Your task to perform on an android device: turn pop-ups on in chrome Image 0: 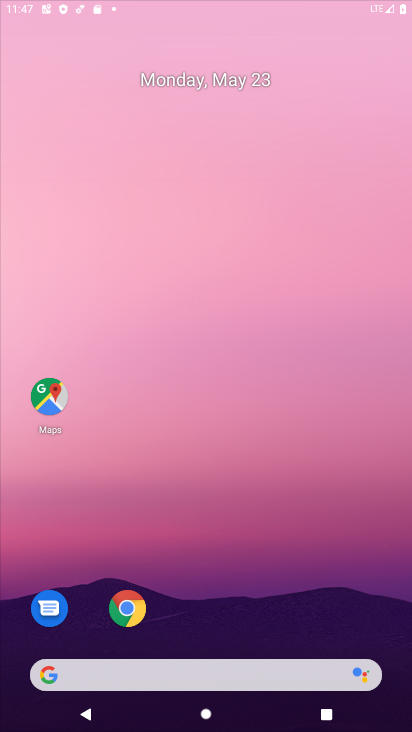
Step 0: press home button
Your task to perform on an android device: turn pop-ups on in chrome Image 1: 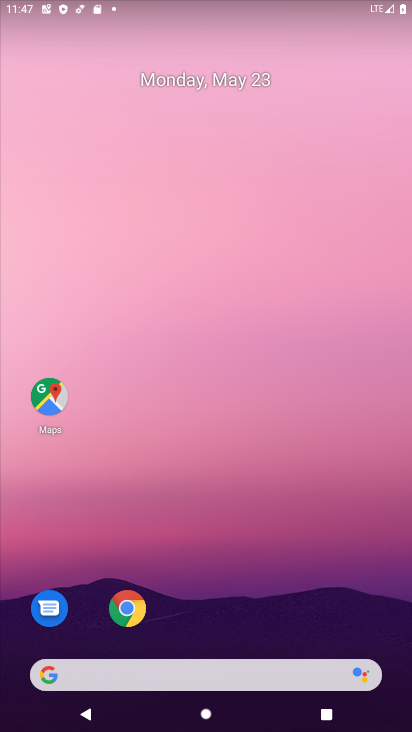
Step 1: click (122, 600)
Your task to perform on an android device: turn pop-ups on in chrome Image 2: 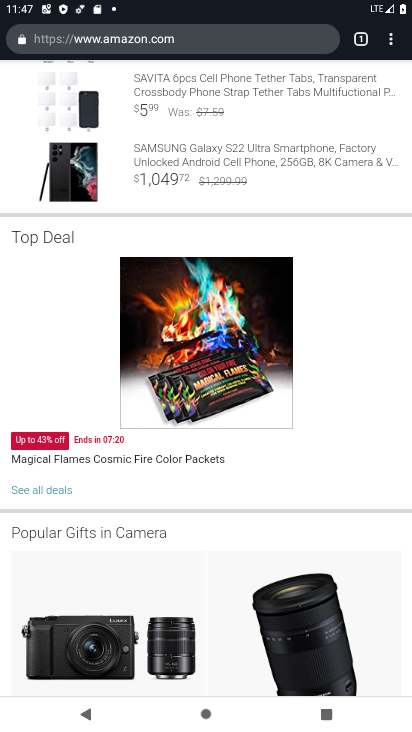
Step 2: click (390, 35)
Your task to perform on an android device: turn pop-ups on in chrome Image 3: 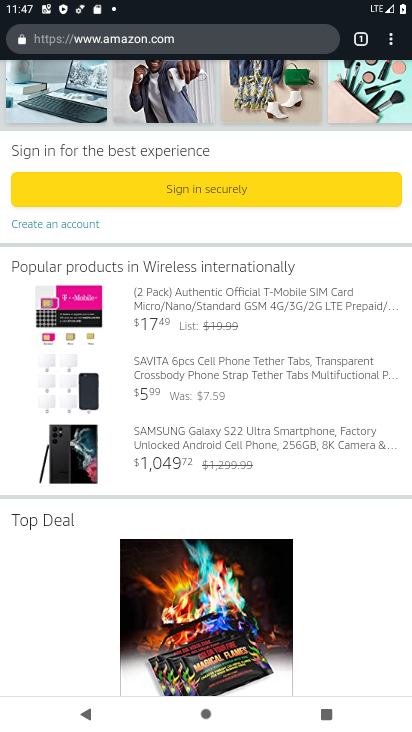
Step 3: click (392, 35)
Your task to perform on an android device: turn pop-ups on in chrome Image 4: 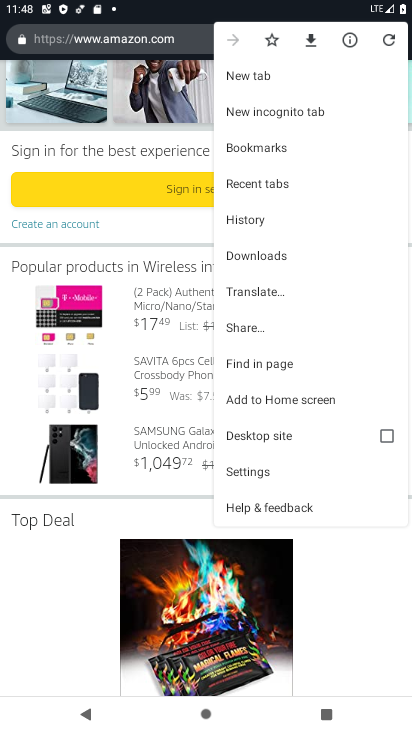
Step 4: click (276, 471)
Your task to perform on an android device: turn pop-ups on in chrome Image 5: 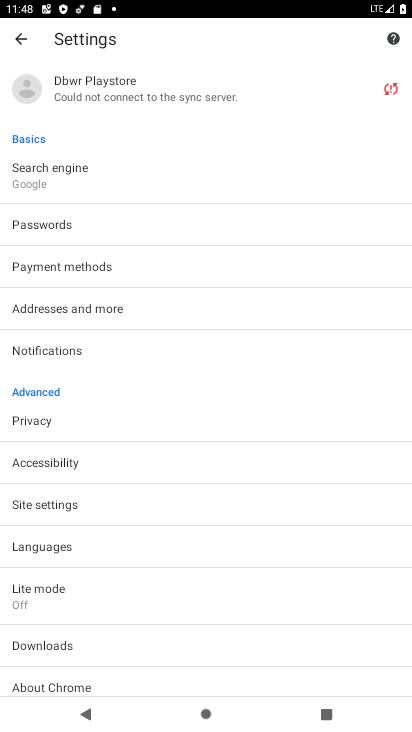
Step 5: click (91, 503)
Your task to perform on an android device: turn pop-ups on in chrome Image 6: 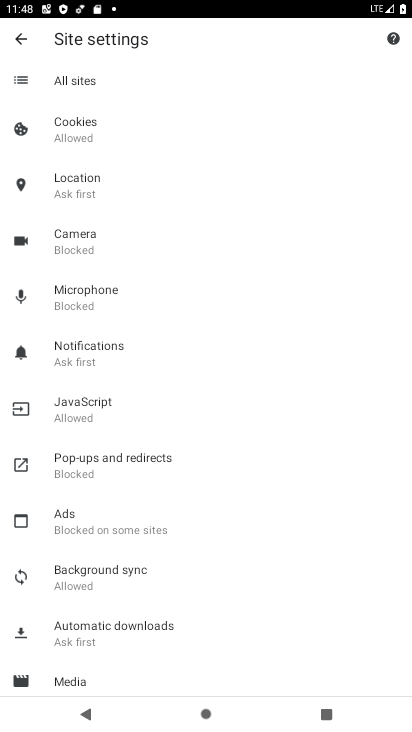
Step 6: click (102, 467)
Your task to perform on an android device: turn pop-ups on in chrome Image 7: 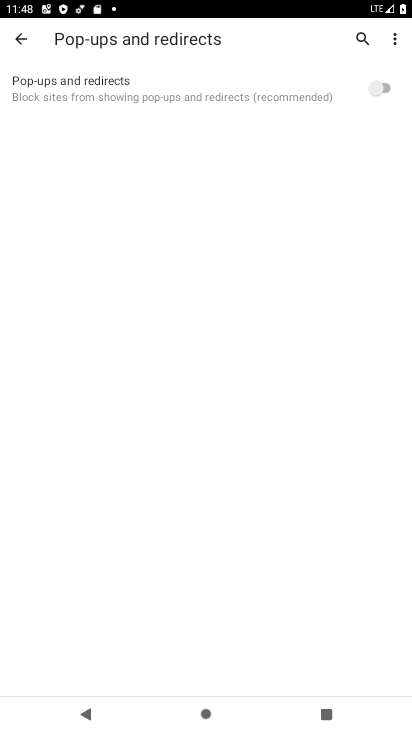
Step 7: click (386, 82)
Your task to perform on an android device: turn pop-ups on in chrome Image 8: 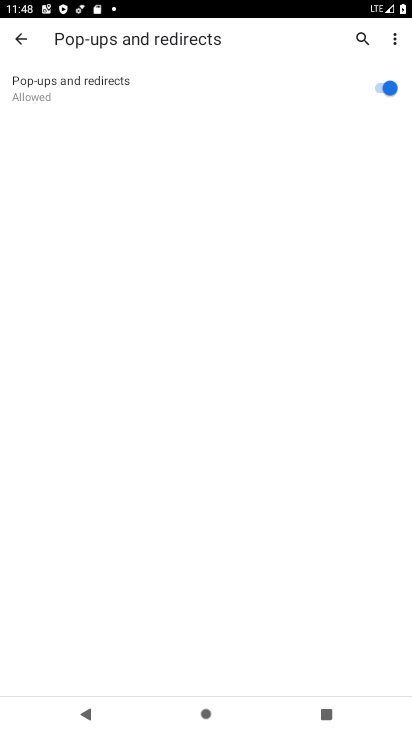
Step 8: task complete